Your task to perform on an android device: Search for seafood restaurants on Google Maps Image 0: 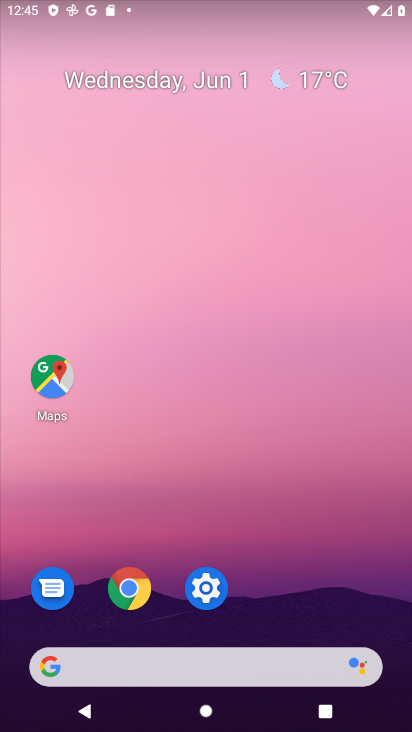
Step 0: press home button
Your task to perform on an android device: Search for seafood restaurants on Google Maps Image 1: 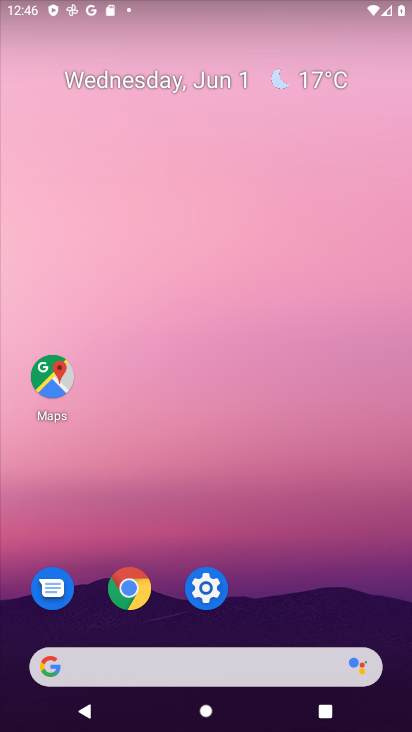
Step 1: click (55, 382)
Your task to perform on an android device: Search for seafood restaurants on Google Maps Image 2: 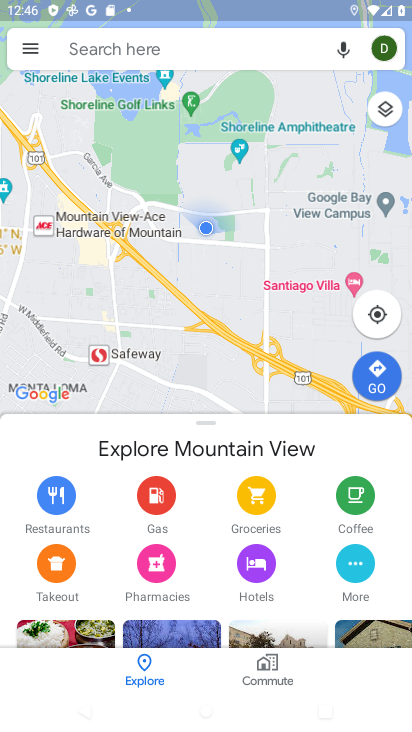
Step 2: click (120, 47)
Your task to perform on an android device: Search for seafood restaurants on Google Maps Image 3: 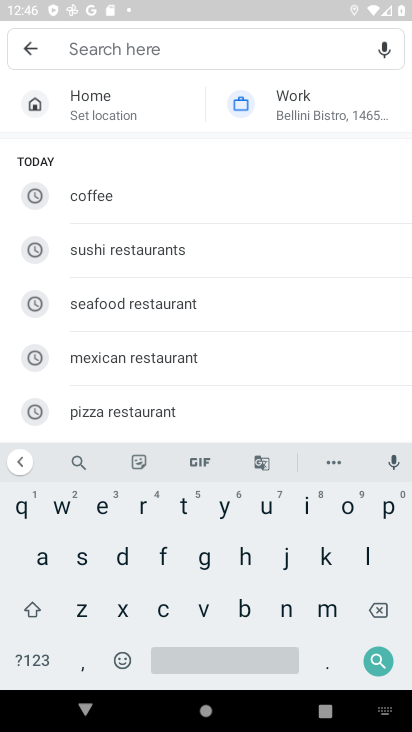
Step 3: click (73, 556)
Your task to perform on an android device: Search for seafood restaurants on Google Maps Image 4: 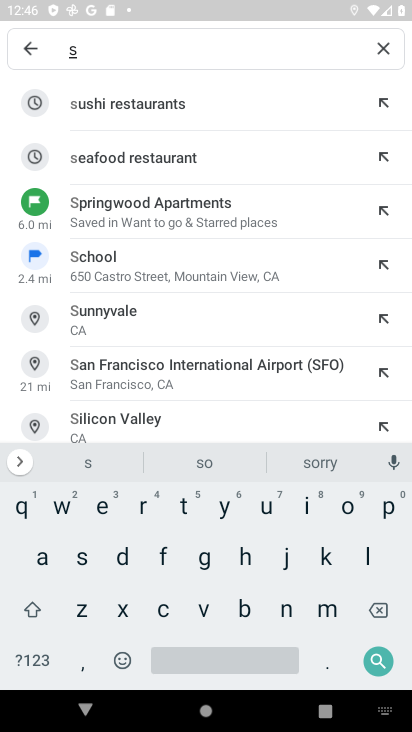
Step 4: click (148, 164)
Your task to perform on an android device: Search for seafood restaurants on Google Maps Image 5: 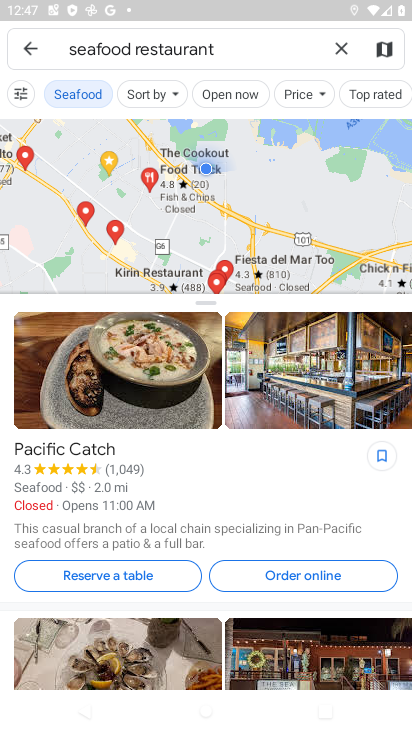
Step 5: task complete